Your task to perform on an android device: check battery use Image 0: 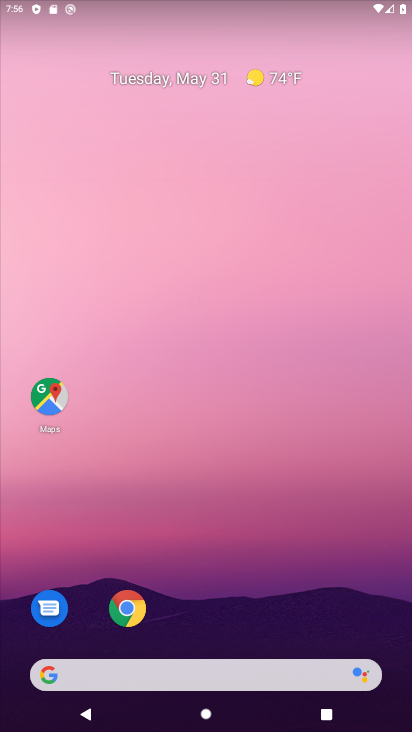
Step 0: drag from (227, 650) to (149, 19)
Your task to perform on an android device: check battery use Image 1: 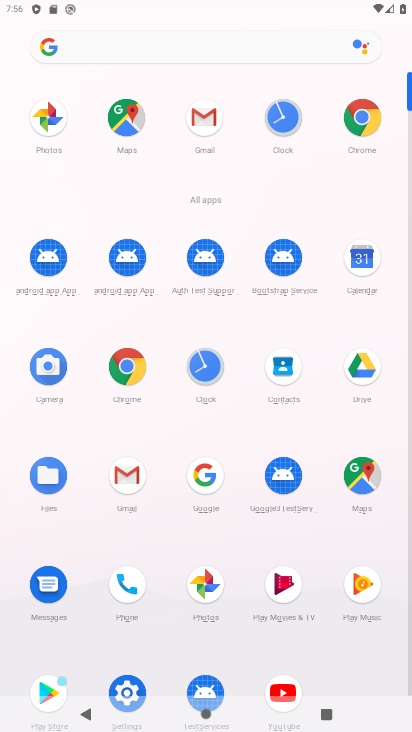
Step 1: click (116, 679)
Your task to perform on an android device: check battery use Image 2: 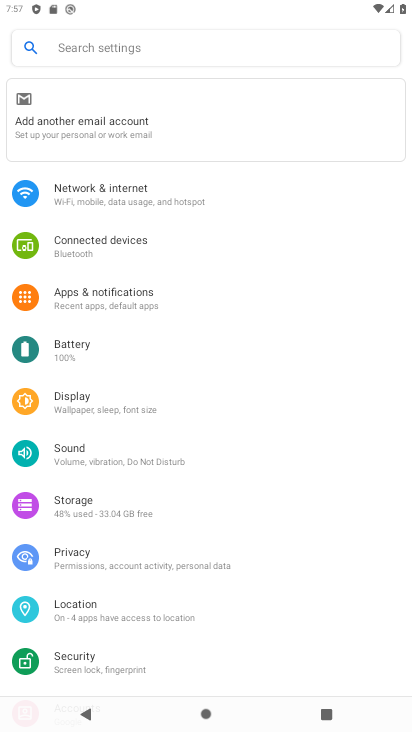
Step 2: click (77, 343)
Your task to perform on an android device: check battery use Image 3: 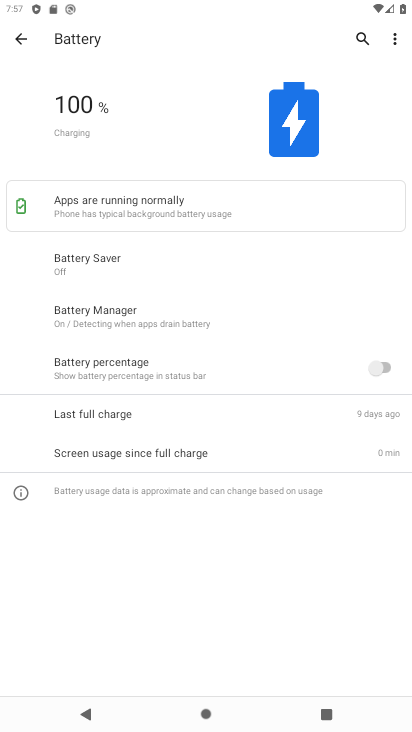
Step 3: task complete